Your task to perform on an android device: toggle sleep mode Image 0: 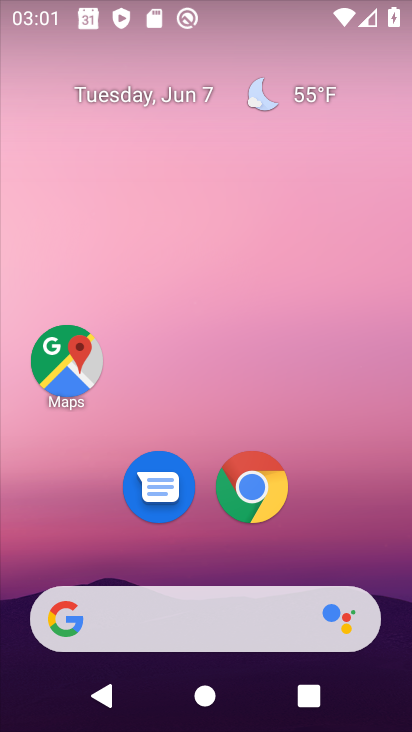
Step 0: drag from (249, 614) to (252, 67)
Your task to perform on an android device: toggle sleep mode Image 1: 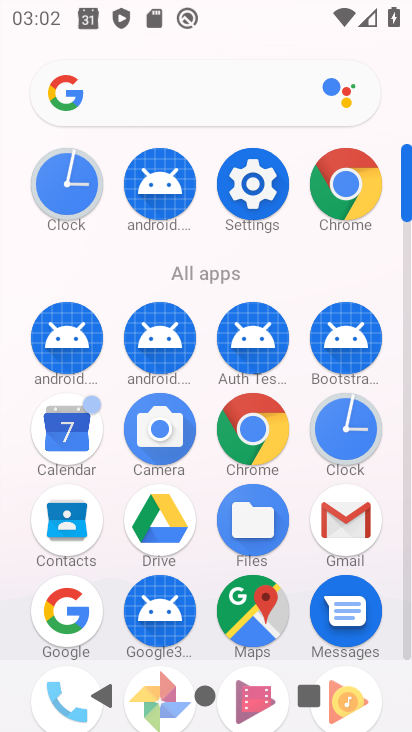
Step 1: drag from (198, 617) to (196, 84)
Your task to perform on an android device: toggle sleep mode Image 2: 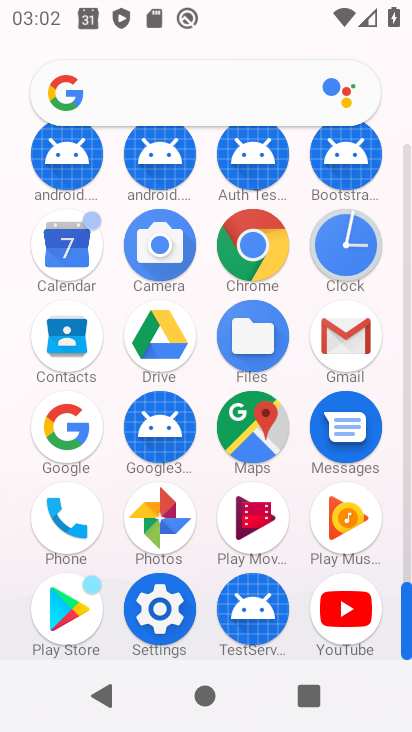
Step 2: click (149, 612)
Your task to perform on an android device: toggle sleep mode Image 3: 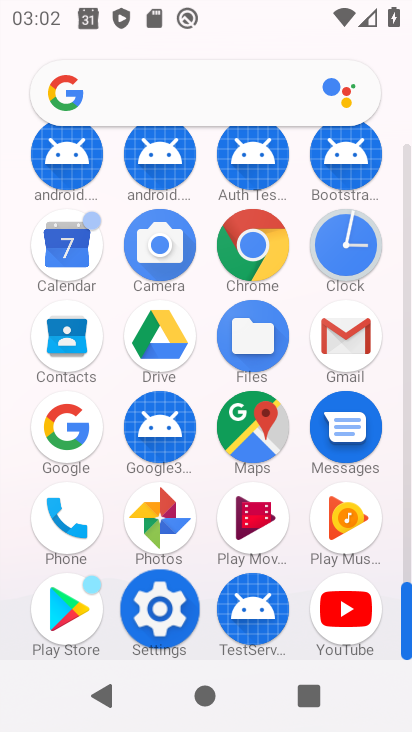
Step 3: click (137, 602)
Your task to perform on an android device: toggle sleep mode Image 4: 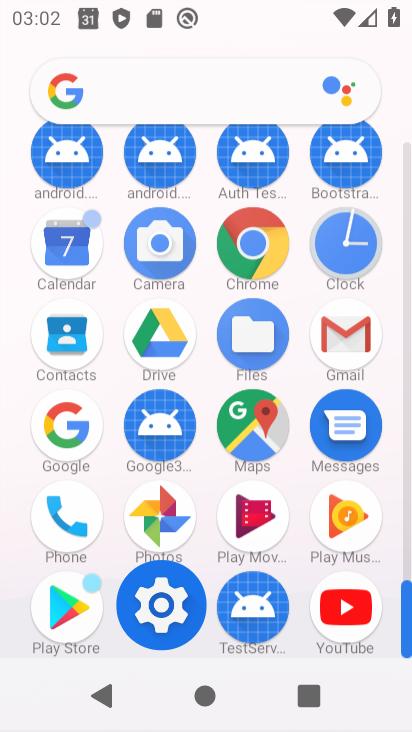
Step 4: click (137, 602)
Your task to perform on an android device: toggle sleep mode Image 5: 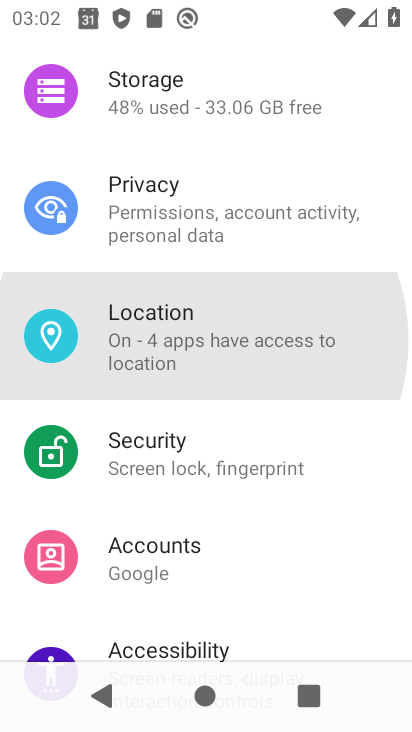
Step 5: click (144, 606)
Your task to perform on an android device: toggle sleep mode Image 6: 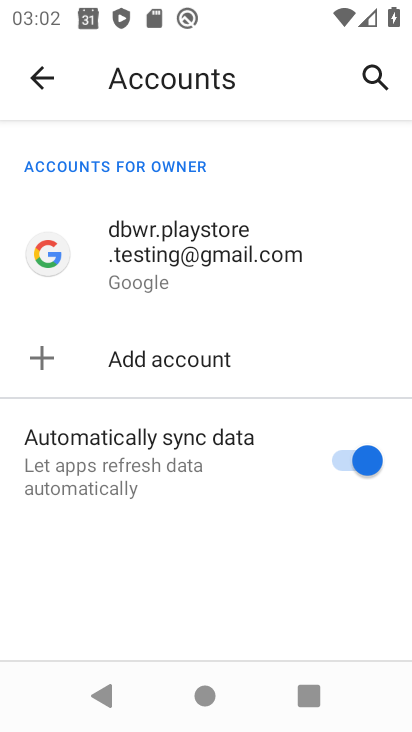
Step 6: click (47, 80)
Your task to perform on an android device: toggle sleep mode Image 7: 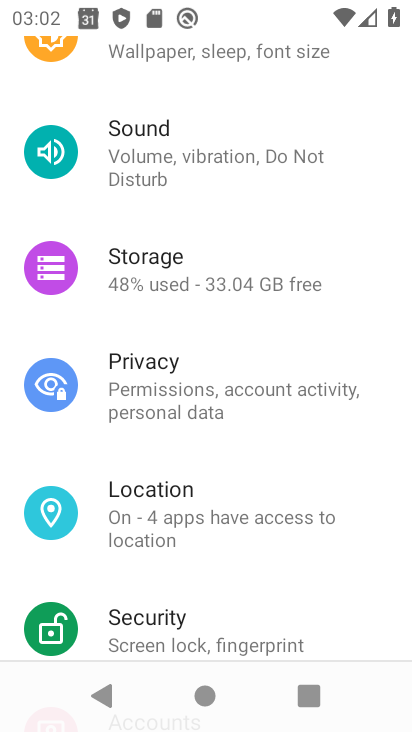
Step 7: drag from (165, 484) to (93, 136)
Your task to perform on an android device: toggle sleep mode Image 8: 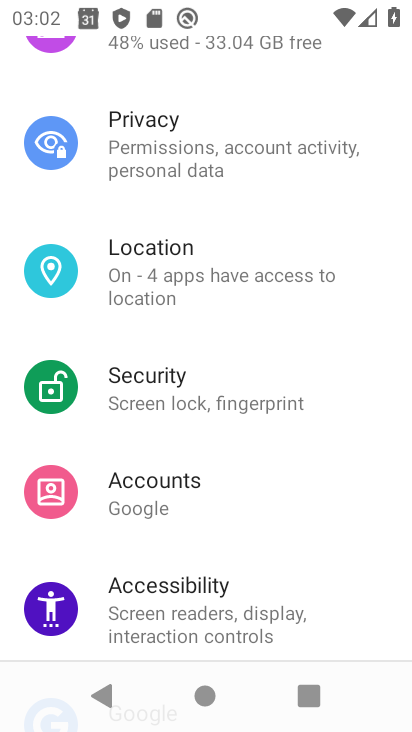
Step 8: drag from (295, 482) to (216, 218)
Your task to perform on an android device: toggle sleep mode Image 9: 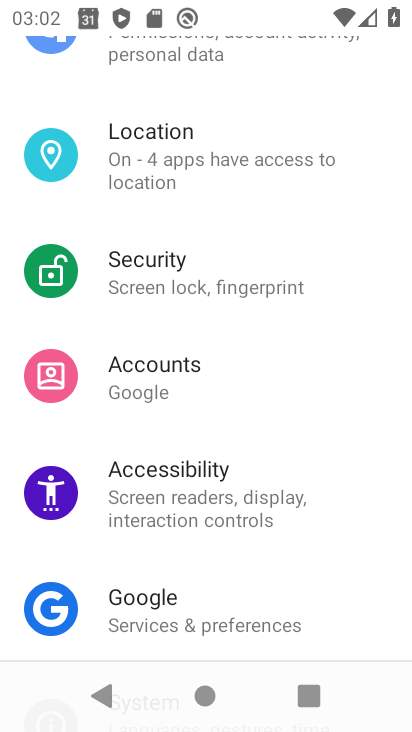
Step 9: drag from (248, 378) to (206, 181)
Your task to perform on an android device: toggle sleep mode Image 10: 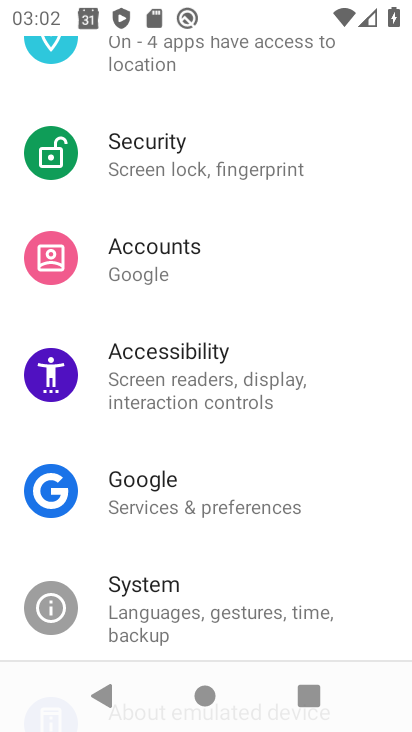
Step 10: drag from (266, 527) to (174, 279)
Your task to perform on an android device: toggle sleep mode Image 11: 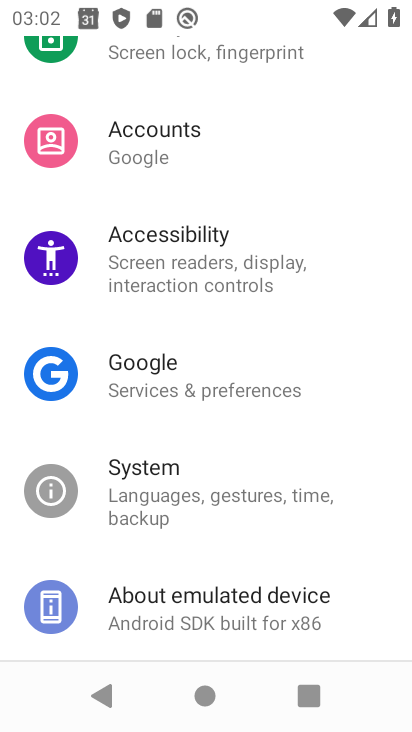
Step 11: drag from (126, 171) to (223, 558)
Your task to perform on an android device: toggle sleep mode Image 12: 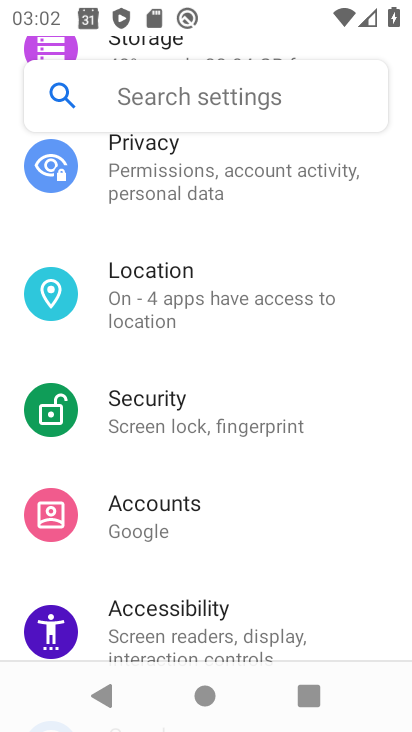
Step 12: drag from (153, 182) to (160, 503)
Your task to perform on an android device: toggle sleep mode Image 13: 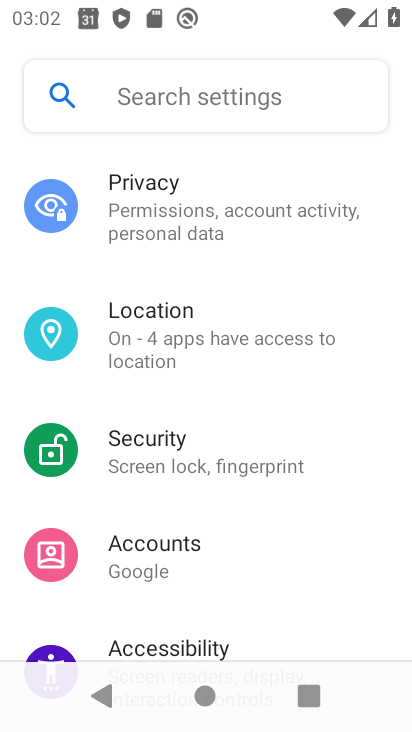
Step 13: drag from (150, 244) to (199, 561)
Your task to perform on an android device: toggle sleep mode Image 14: 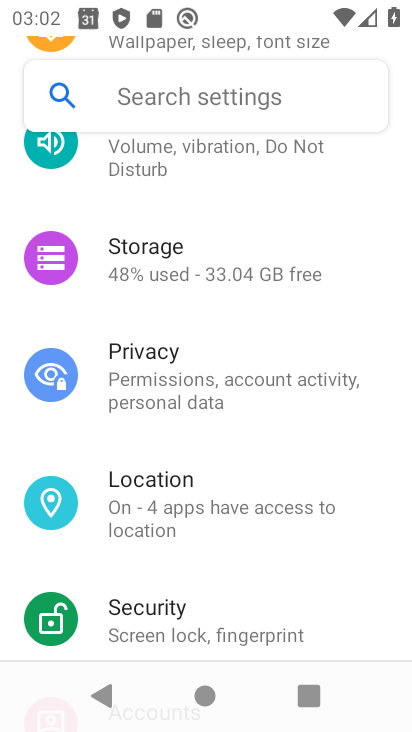
Step 14: drag from (118, 225) to (152, 437)
Your task to perform on an android device: toggle sleep mode Image 15: 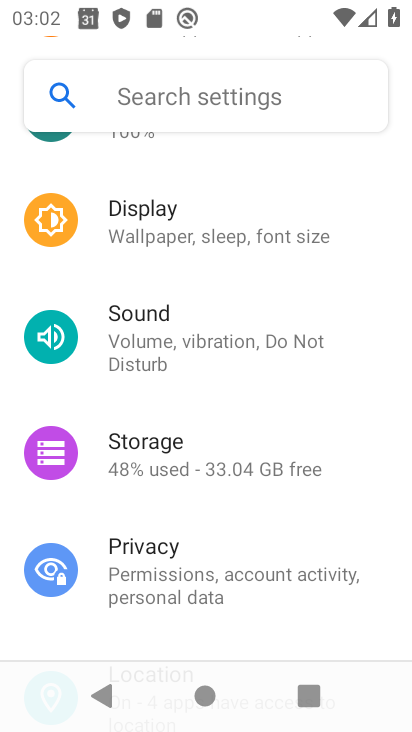
Step 15: drag from (170, 220) to (182, 564)
Your task to perform on an android device: toggle sleep mode Image 16: 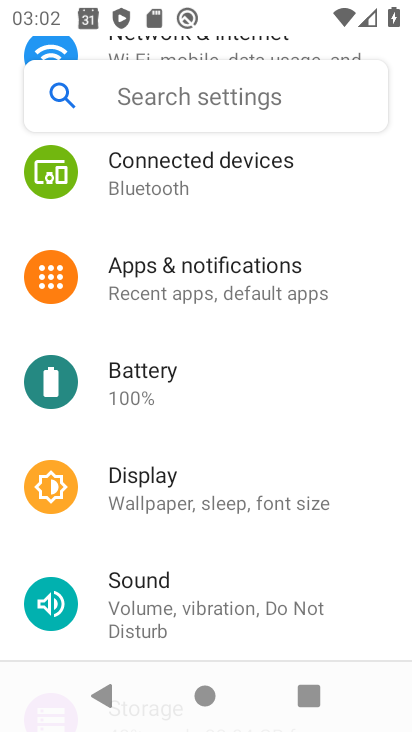
Step 16: drag from (195, 308) to (218, 619)
Your task to perform on an android device: toggle sleep mode Image 17: 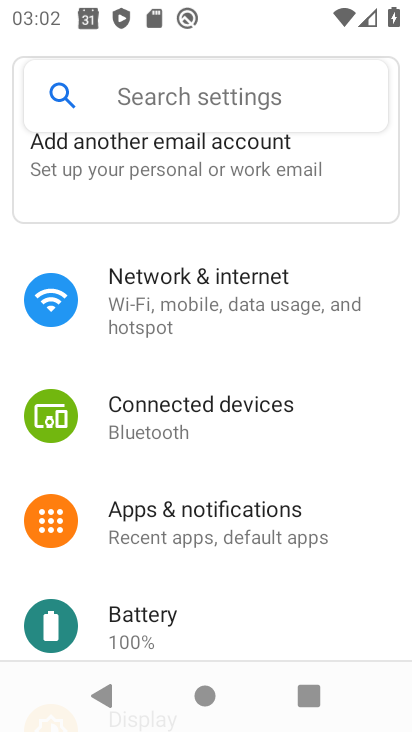
Step 17: drag from (166, 290) to (197, 516)
Your task to perform on an android device: toggle sleep mode Image 18: 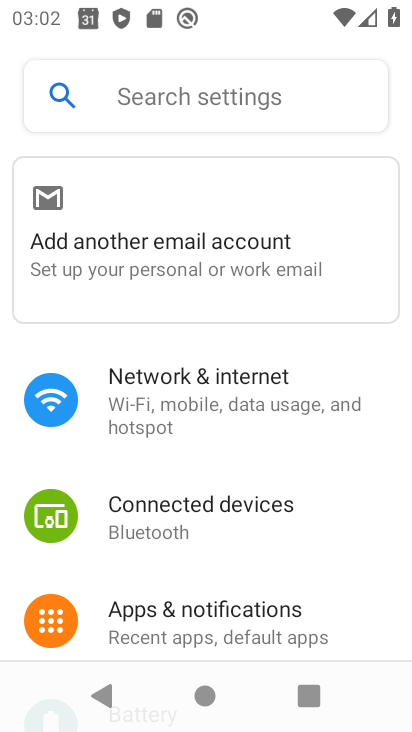
Step 18: drag from (181, 312) to (199, 558)
Your task to perform on an android device: toggle sleep mode Image 19: 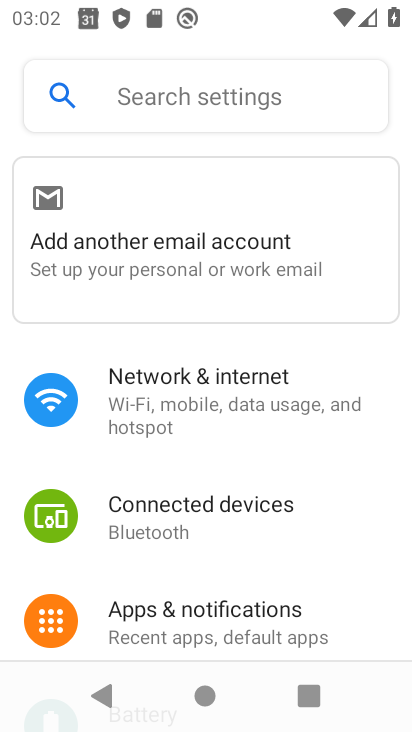
Step 19: drag from (200, 531) to (175, 249)
Your task to perform on an android device: toggle sleep mode Image 20: 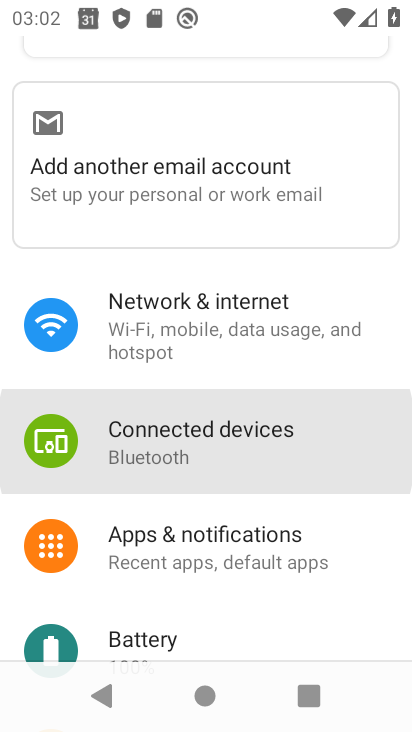
Step 20: drag from (211, 572) to (214, 266)
Your task to perform on an android device: toggle sleep mode Image 21: 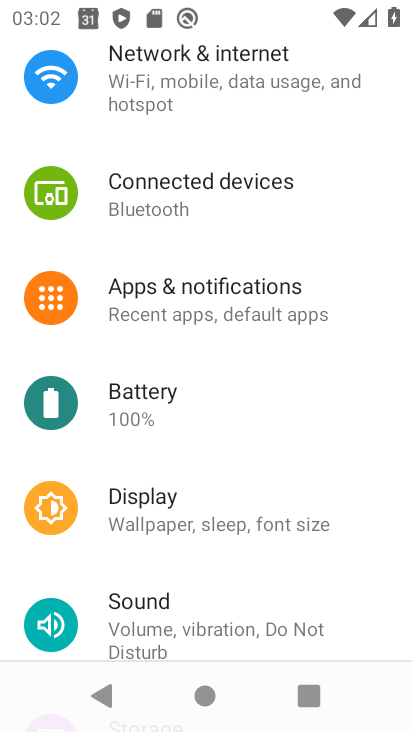
Step 21: drag from (196, 502) to (195, 201)
Your task to perform on an android device: toggle sleep mode Image 22: 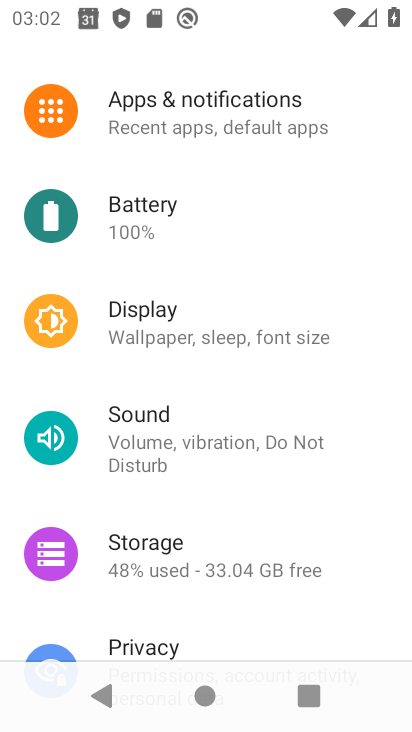
Step 22: click (150, 332)
Your task to perform on an android device: toggle sleep mode Image 23: 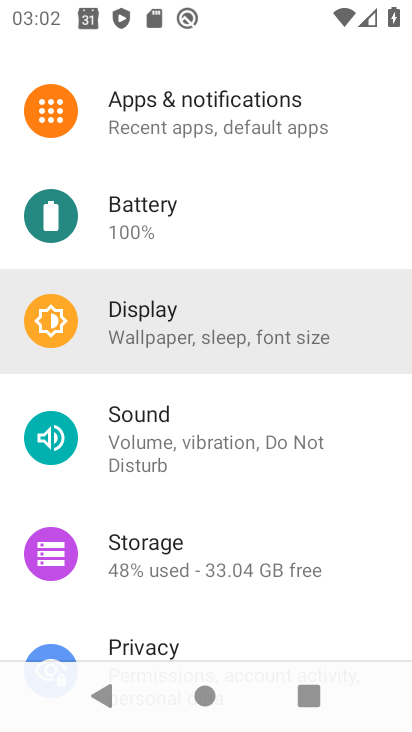
Step 23: click (150, 331)
Your task to perform on an android device: toggle sleep mode Image 24: 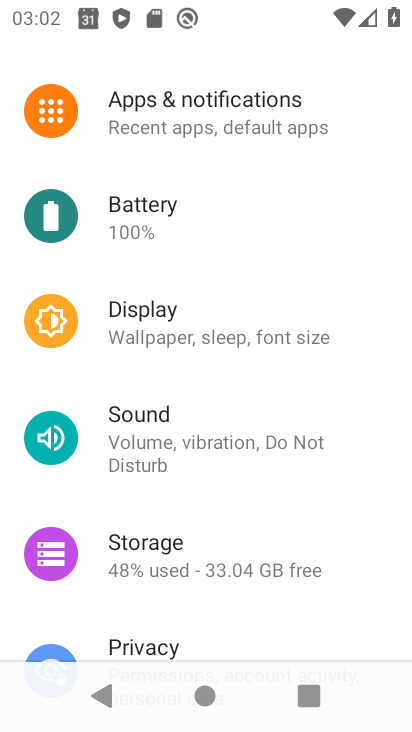
Step 24: click (149, 330)
Your task to perform on an android device: toggle sleep mode Image 25: 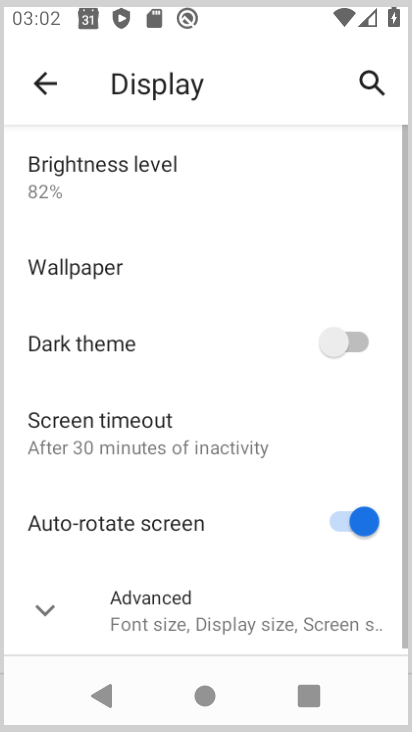
Step 25: click (149, 329)
Your task to perform on an android device: toggle sleep mode Image 26: 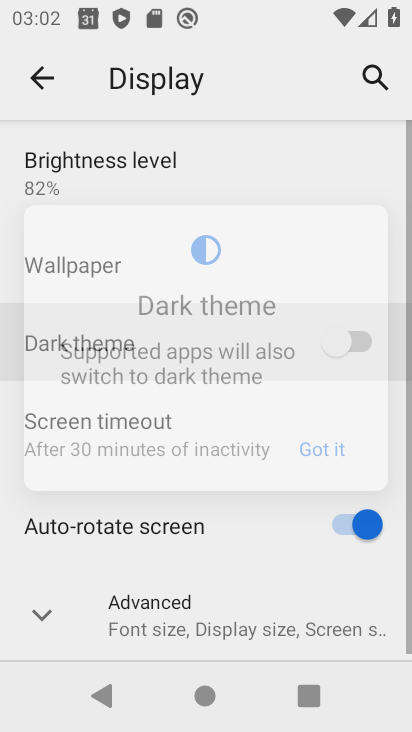
Step 26: click (149, 329)
Your task to perform on an android device: toggle sleep mode Image 27: 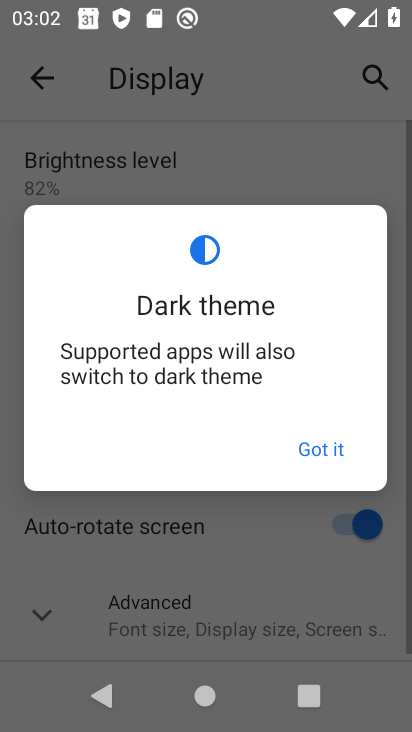
Step 27: click (148, 330)
Your task to perform on an android device: toggle sleep mode Image 28: 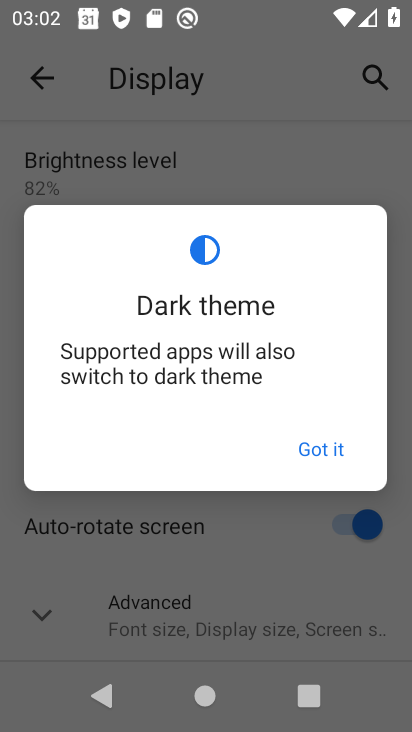
Step 28: click (320, 441)
Your task to perform on an android device: toggle sleep mode Image 29: 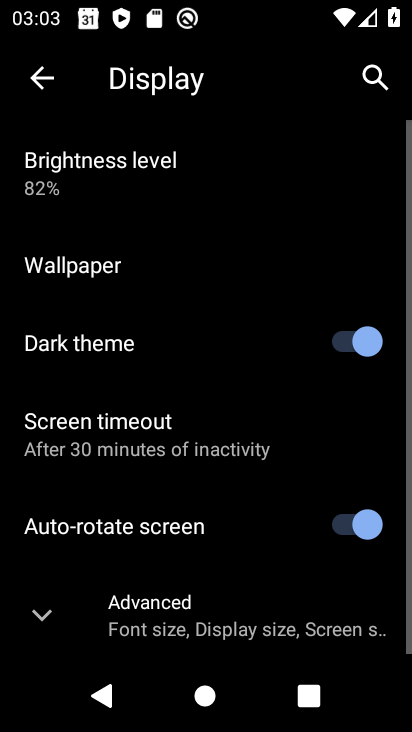
Step 29: click (363, 340)
Your task to perform on an android device: toggle sleep mode Image 30: 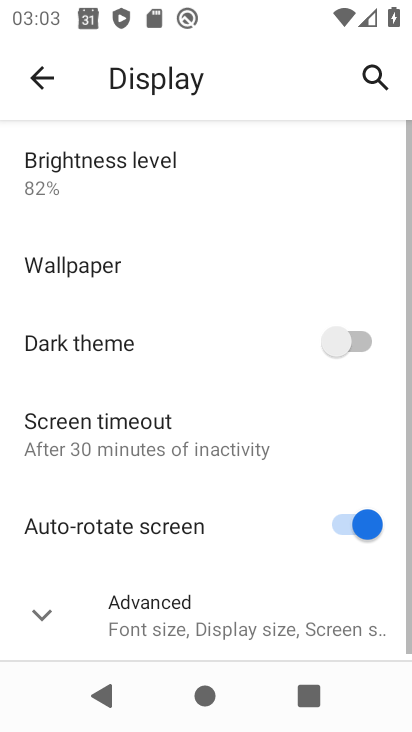
Step 30: click (112, 433)
Your task to perform on an android device: toggle sleep mode Image 31: 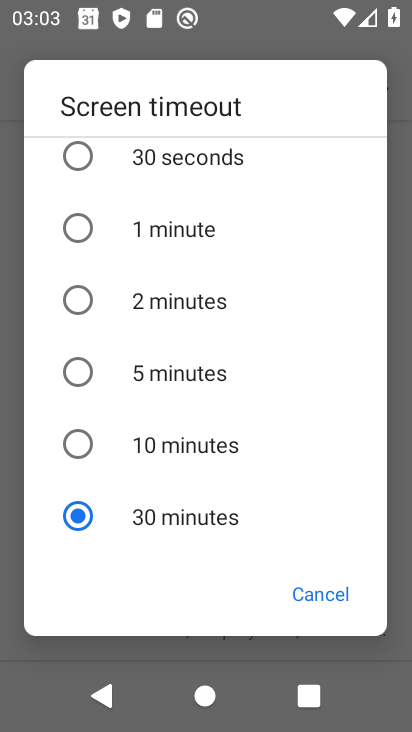
Step 31: click (80, 442)
Your task to perform on an android device: toggle sleep mode Image 32: 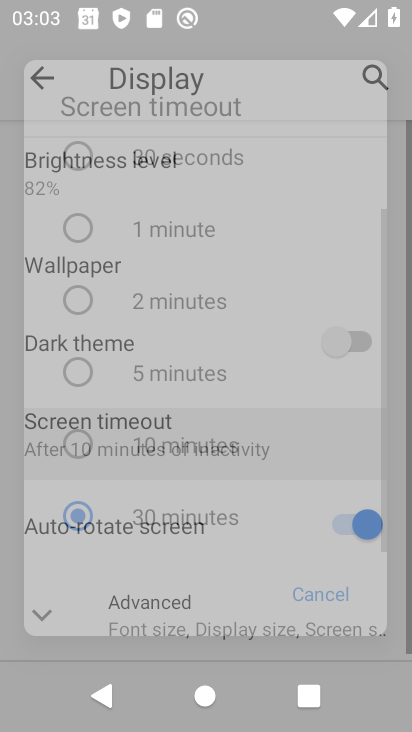
Step 32: click (85, 454)
Your task to perform on an android device: toggle sleep mode Image 33: 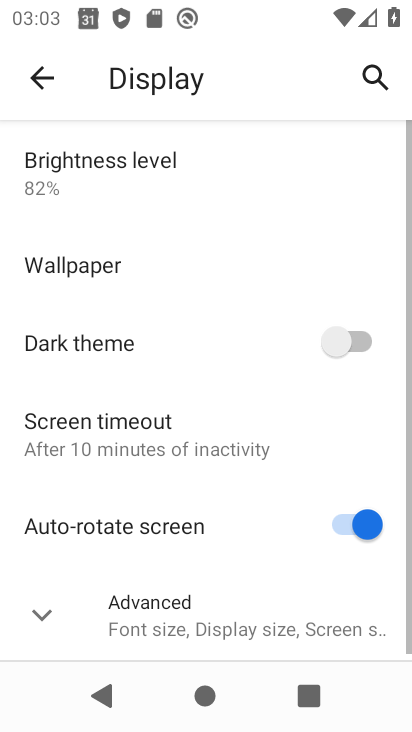
Step 33: click (85, 455)
Your task to perform on an android device: toggle sleep mode Image 34: 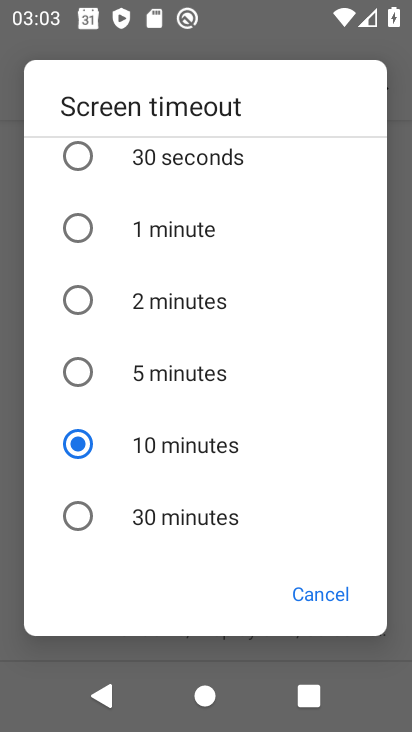
Step 34: task complete